Your task to perform on an android device: turn on location history Image 0: 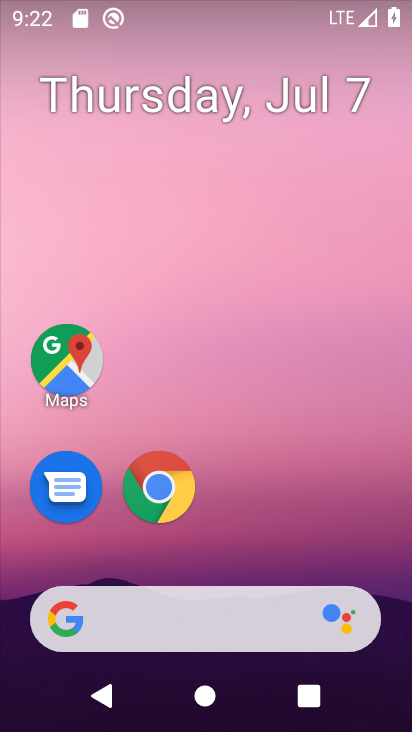
Step 0: drag from (371, 550) to (386, 200)
Your task to perform on an android device: turn on location history Image 1: 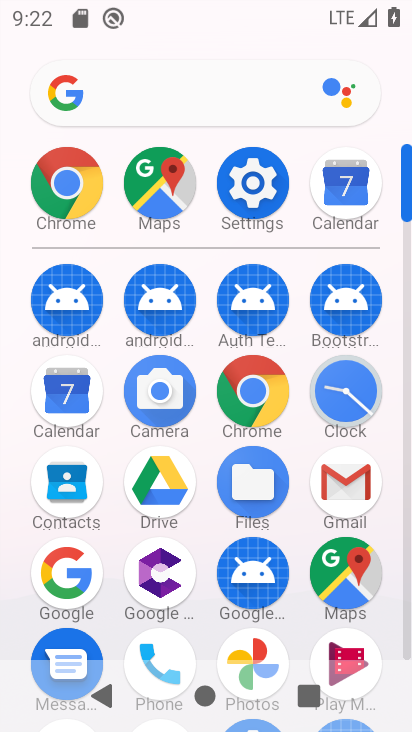
Step 1: click (243, 180)
Your task to perform on an android device: turn on location history Image 2: 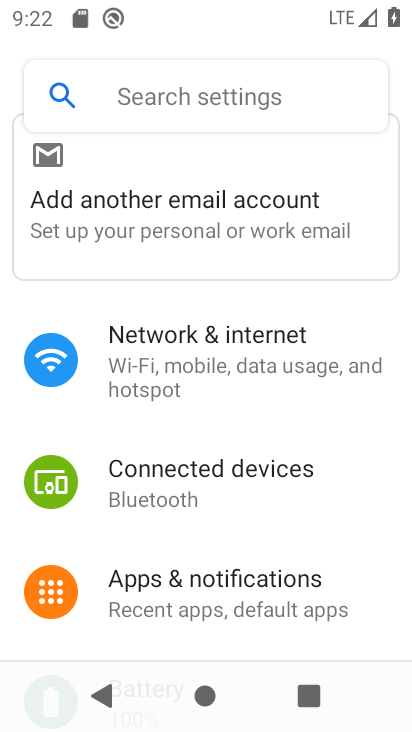
Step 2: drag from (375, 525) to (371, 399)
Your task to perform on an android device: turn on location history Image 3: 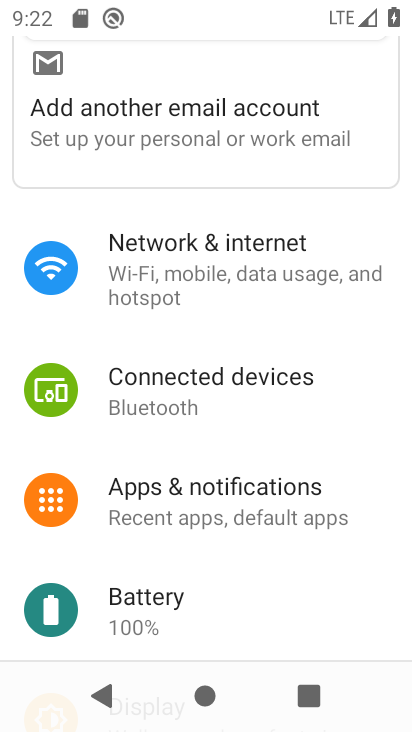
Step 3: drag from (374, 579) to (362, 422)
Your task to perform on an android device: turn on location history Image 4: 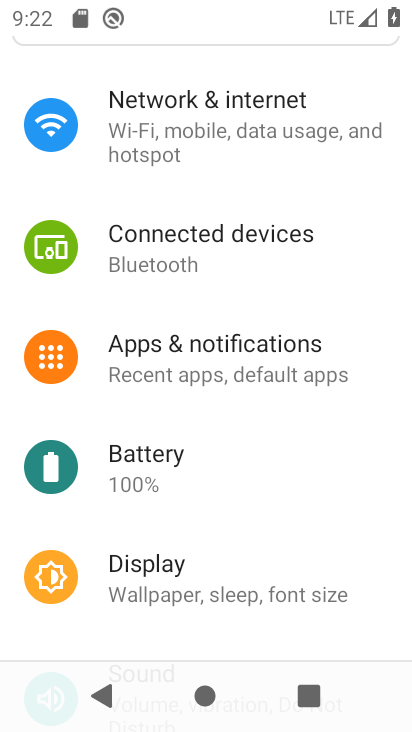
Step 4: drag from (362, 528) to (358, 340)
Your task to perform on an android device: turn on location history Image 5: 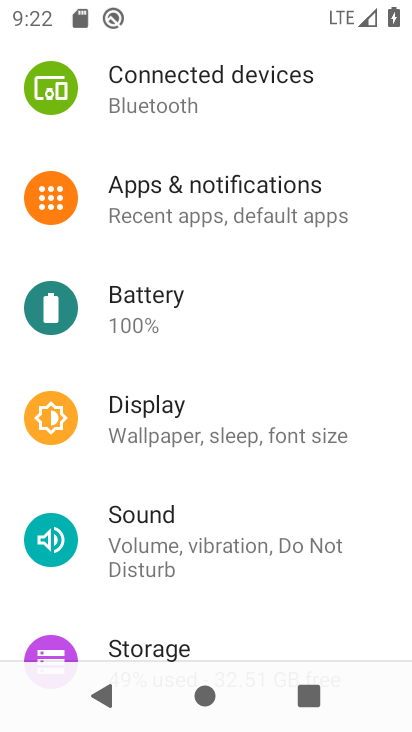
Step 5: drag from (380, 479) to (357, 278)
Your task to perform on an android device: turn on location history Image 6: 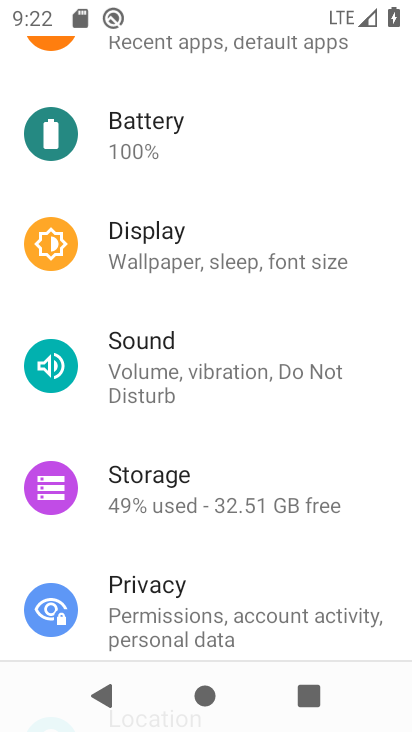
Step 6: drag from (364, 461) to (368, 226)
Your task to perform on an android device: turn on location history Image 7: 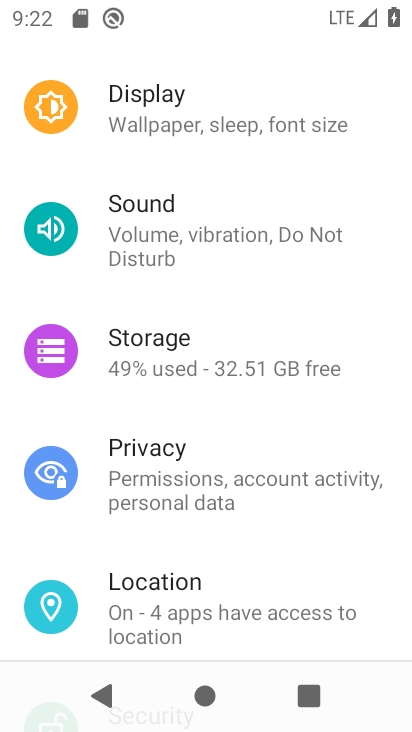
Step 7: click (193, 599)
Your task to perform on an android device: turn on location history Image 8: 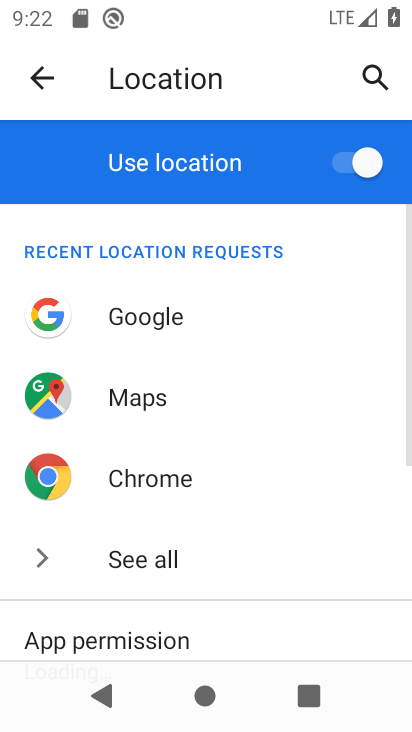
Step 8: drag from (342, 522) to (341, 417)
Your task to perform on an android device: turn on location history Image 9: 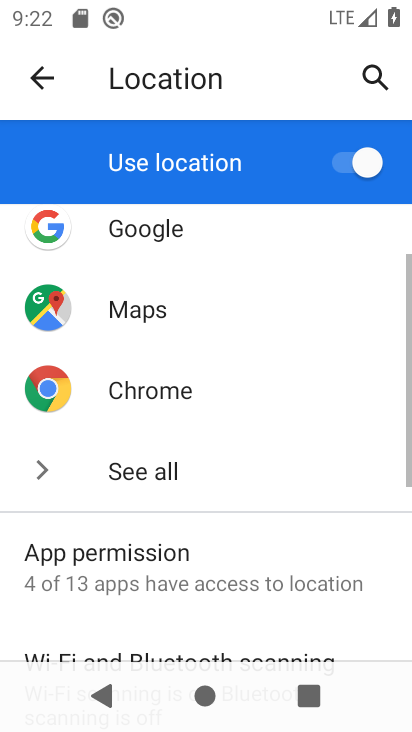
Step 9: drag from (352, 533) to (347, 324)
Your task to perform on an android device: turn on location history Image 10: 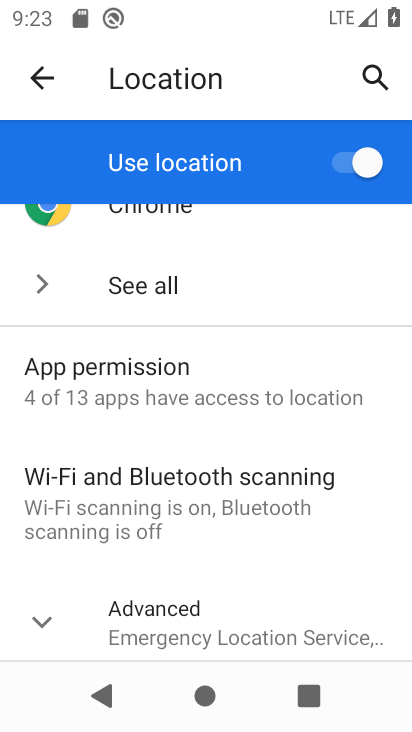
Step 10: drag from (344, 549) to (346, 320)
Your task to perform on an android device: turn on location history Image 11: 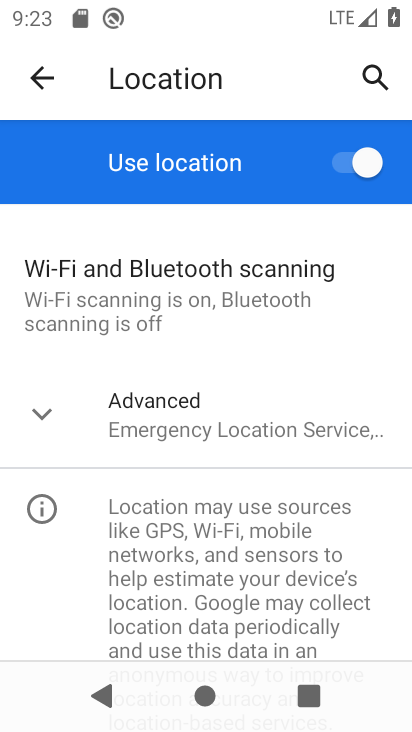
Step 11: click (330, 415)
Your task to perform on an android device: turn on location history Image 12: 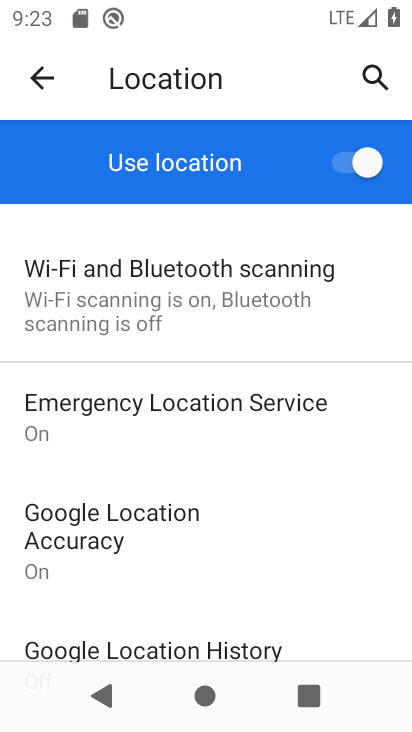
Step 12: drag from (351, 509) to (356, 403)
Your task to perform on an android device: turn on location history Image 13: 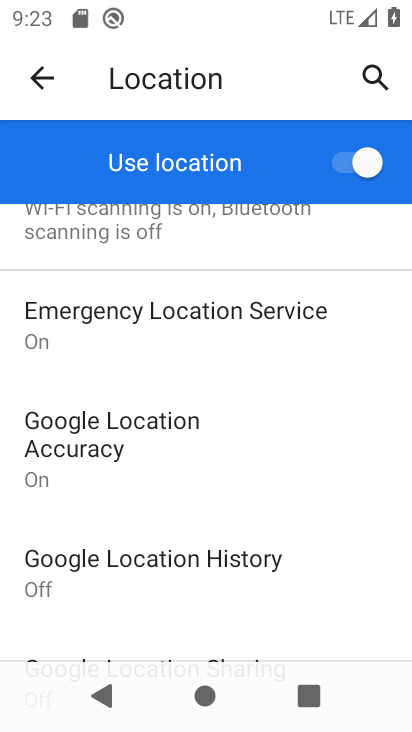
Step 13: drag from (356, 495) to (350, 388)
Your task to perform on an android device: turn on location history Image 14: 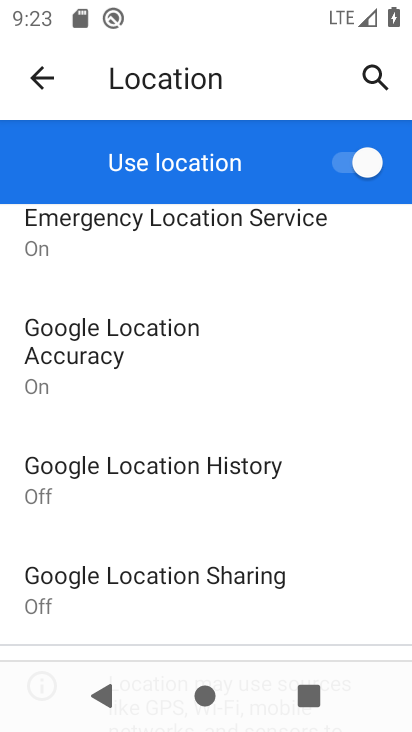
Step 14: click (308, 477)
Your task to perform on an android device: turn on location history Image 15: 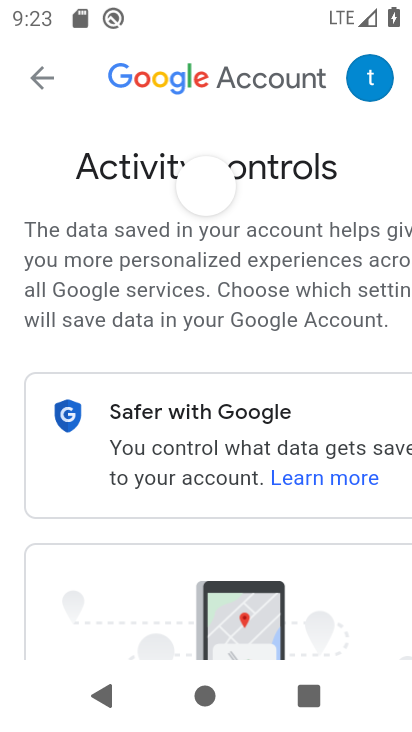
Step 15: task complete